Your task to perform on an android device: Open privacy settings Image 0: 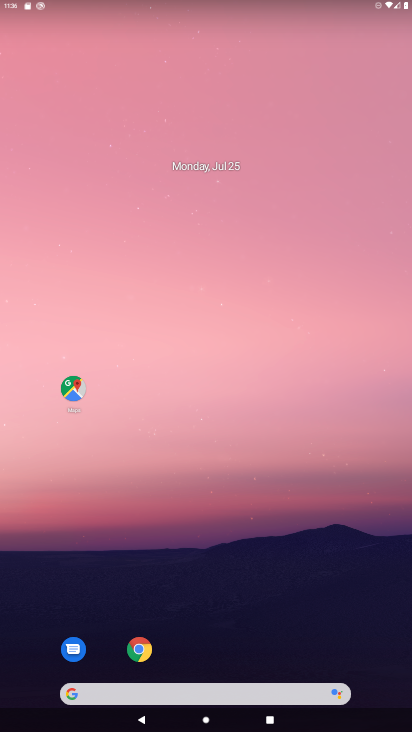
Step 0: drag from (392, 680) to (321, 115)
Your task to perform on an android device: Open privacy settings Image 1: 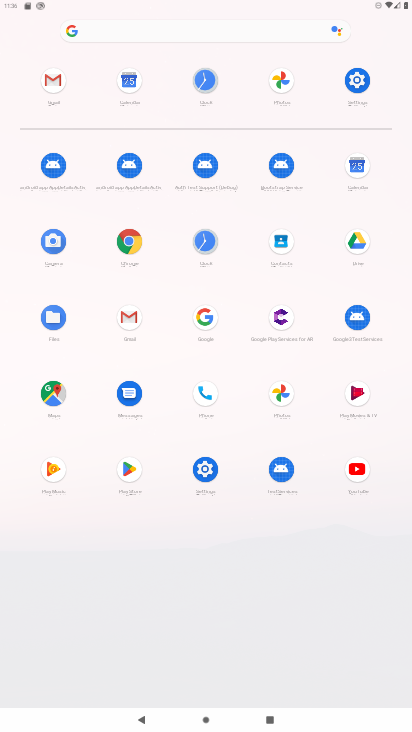
Step 1: click (204, 470)
Your task to perform on an android device: Open privacy settings Image 2: 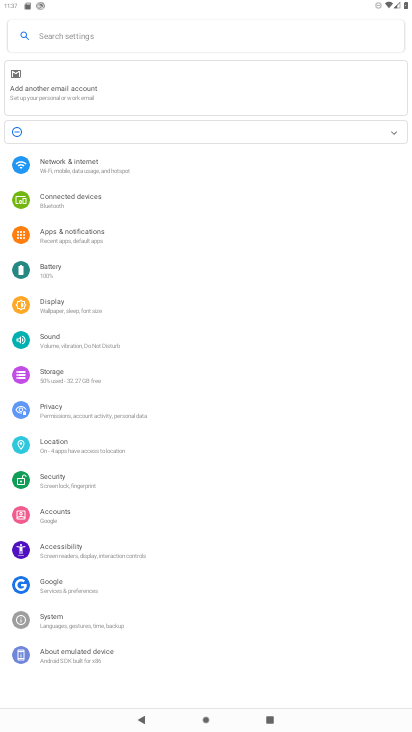
Step 2: click (59, 414)
Your task to perform on an android device: Open privacy settings Image 3: 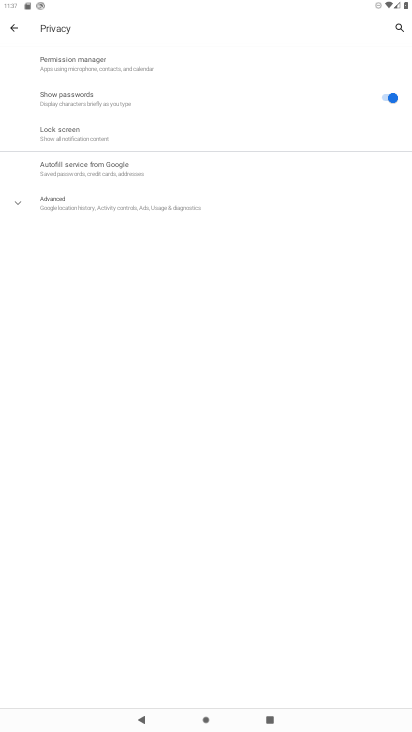
Step 3: click (12, 200)
Your task to perform on an android device: Open privacy settings Image 4: 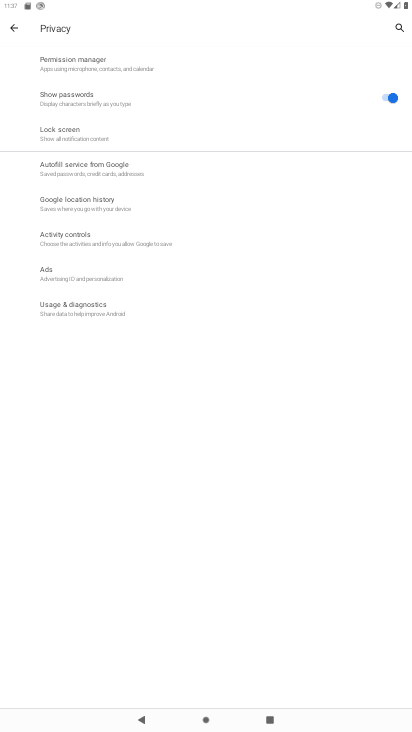
Step 4: task complete